Your task to perform on an android device: Open Google Chrome and open the bookmarks view Image 0: 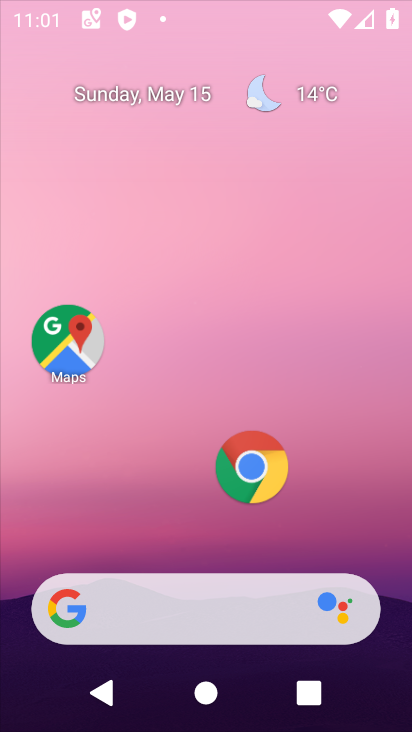
Step 0: drag from (359, 189) to (374, 134)
Your task to perform on an android device: Open Google Chrome and open the bookmarks view Image 1: 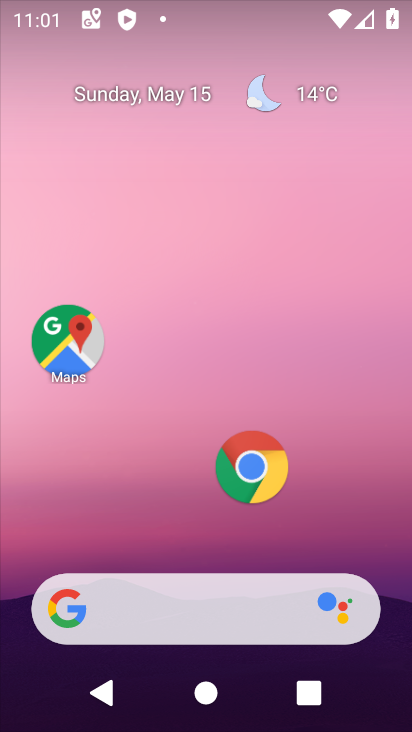
Step 1: drag from (180, 572) to (345, 121)
Your task to perform on an android device: Open Google Chrome and open the bookmarks view Image 2: 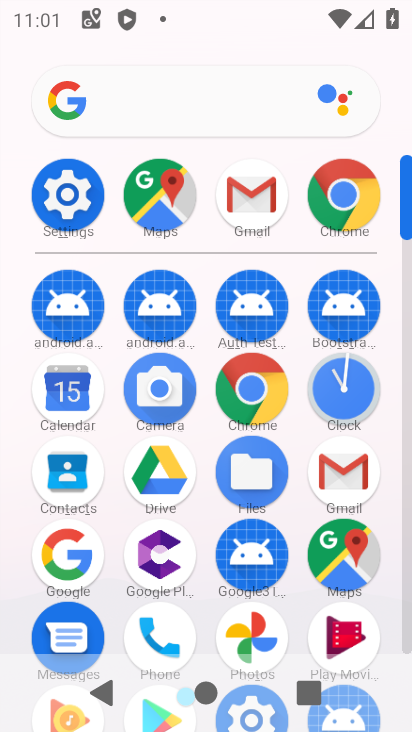
Step 2: click (260, 387)
Your task to perform on an android device: Open Google Chrome and open the bookmarks view Image 3: 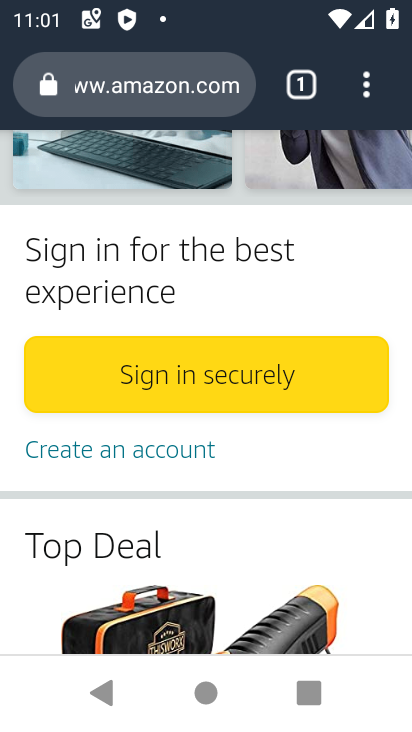
Step 3: click (362, 70)
Your task to perform on an android device: Open Google Chrome and open the bookmarks view Image 4: 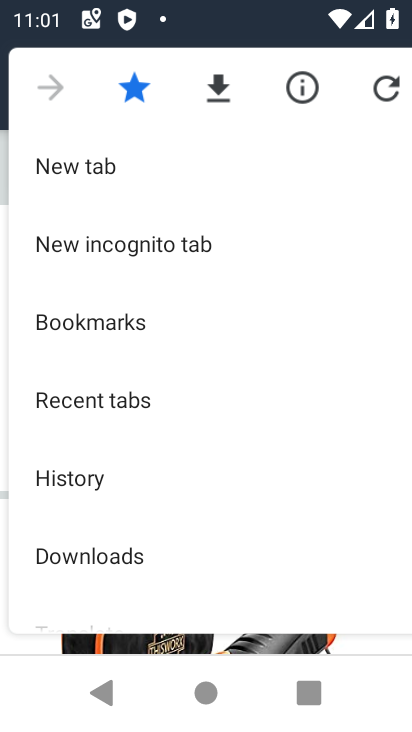
Step 4: click (78, 324)
Your task to perform on an android device: Open Google Chrome and open the bookmarks view Image 5: 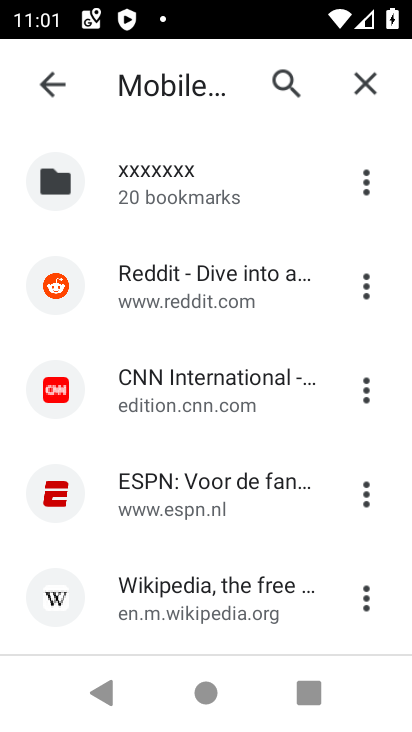
Step 5: task complete